Your task to perform on an android device: Open the calendar and show me this week's events? Image 0: 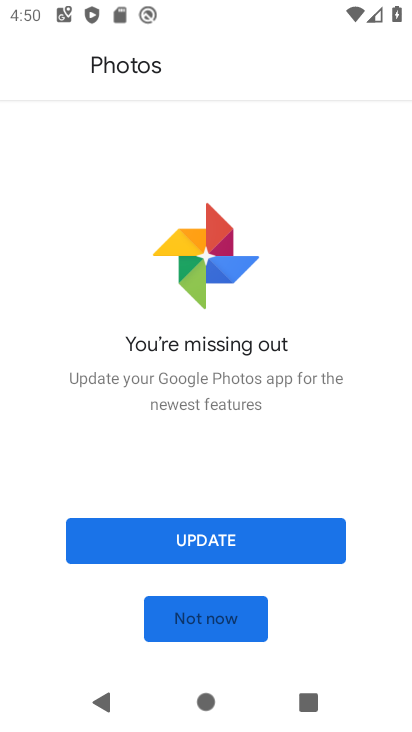
Step 0: press home button
Your task to perform on an android device: Open the calendar and show me this week's events? Image 1: 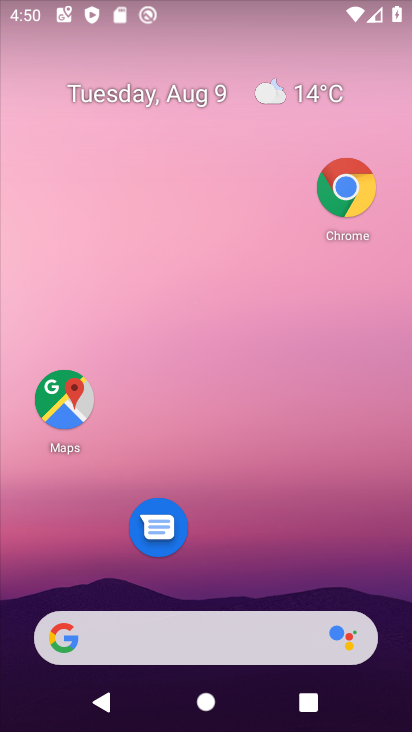
Step 1: click (104, 101)
Your task to perform on an android device: Open the calendar and show me this week's events? Image 2: 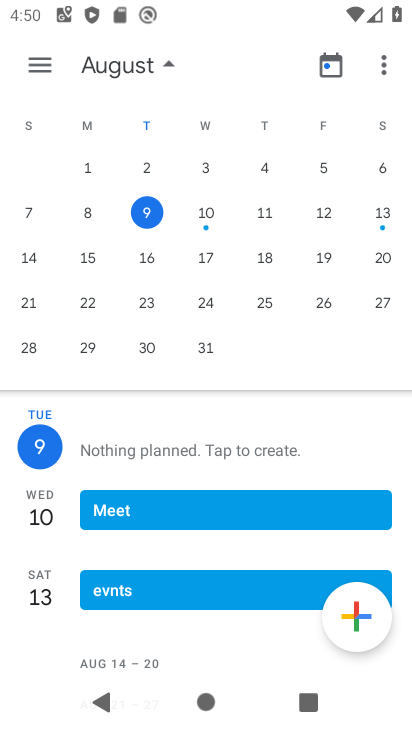
Step 2: click (37, 74)
Your task to perform on an android device: Open the calendar and show me this week's events? Image 3: 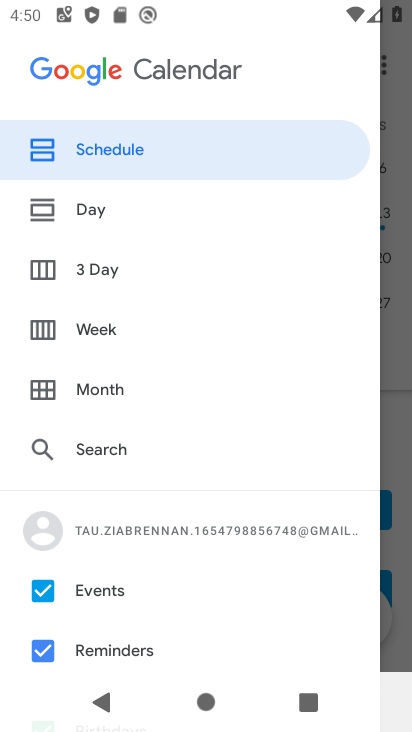
Step 3: click (43, 643)
Your task to perform on an android device: Open the calendar and show me this week's events? Image 4: 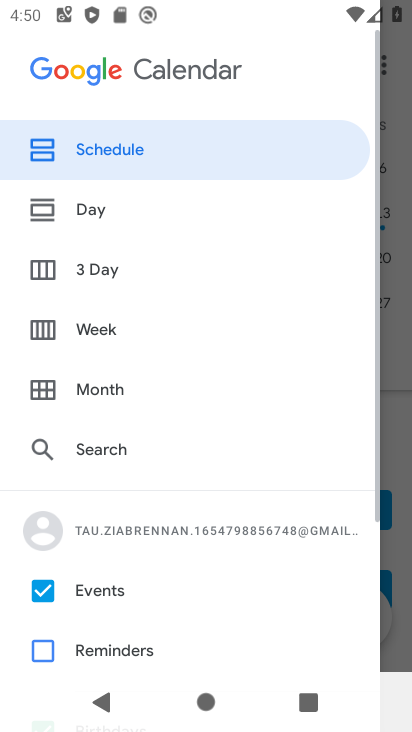
Step 4: drag from (193, 591) to (218, 200)
Your task to perform on an android device: Open the calendar and show me this week's events? Image 5: 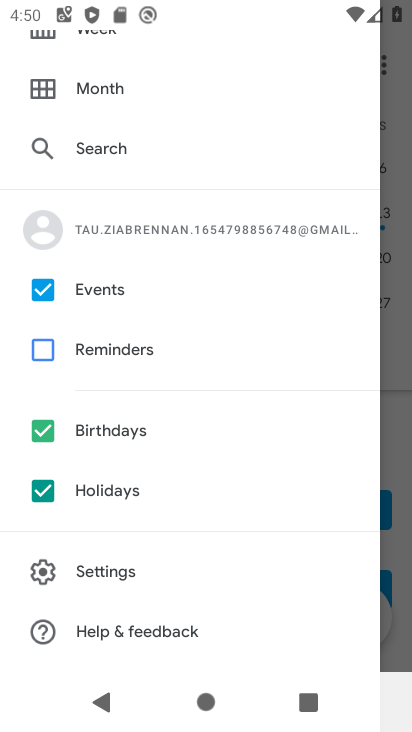
Step 5: click (43, 435)
Your task to perform on an android device: Open the calendar and show me this week's events? Image 6: 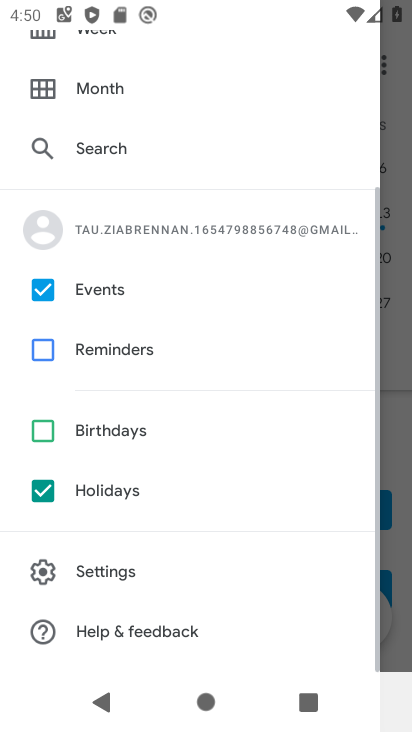
Step 6: click (43, 497)
Your task to perform on an android device: Open the calendar and show me this week's events? Image 7: 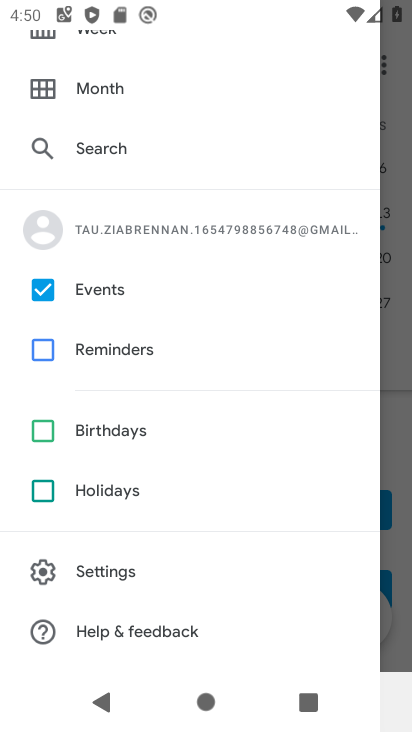
Step 7: click (94, 35)
Your task to perform on an android device: Open the calendar and show me this week's events? Image 8: 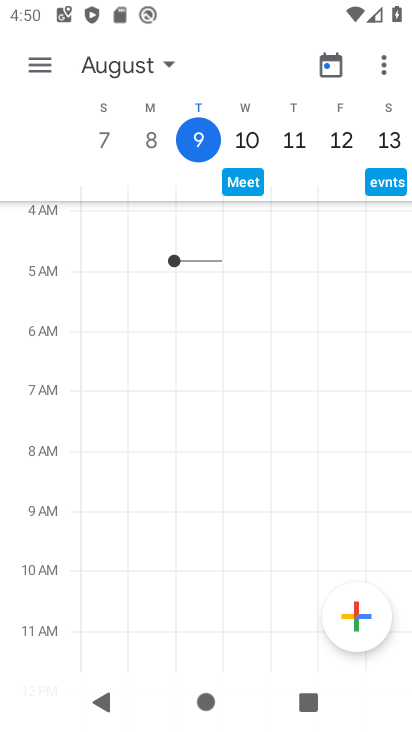
Step 8: task complete